Your task to perform on an android device: open app "Google Chrome" Image 0: 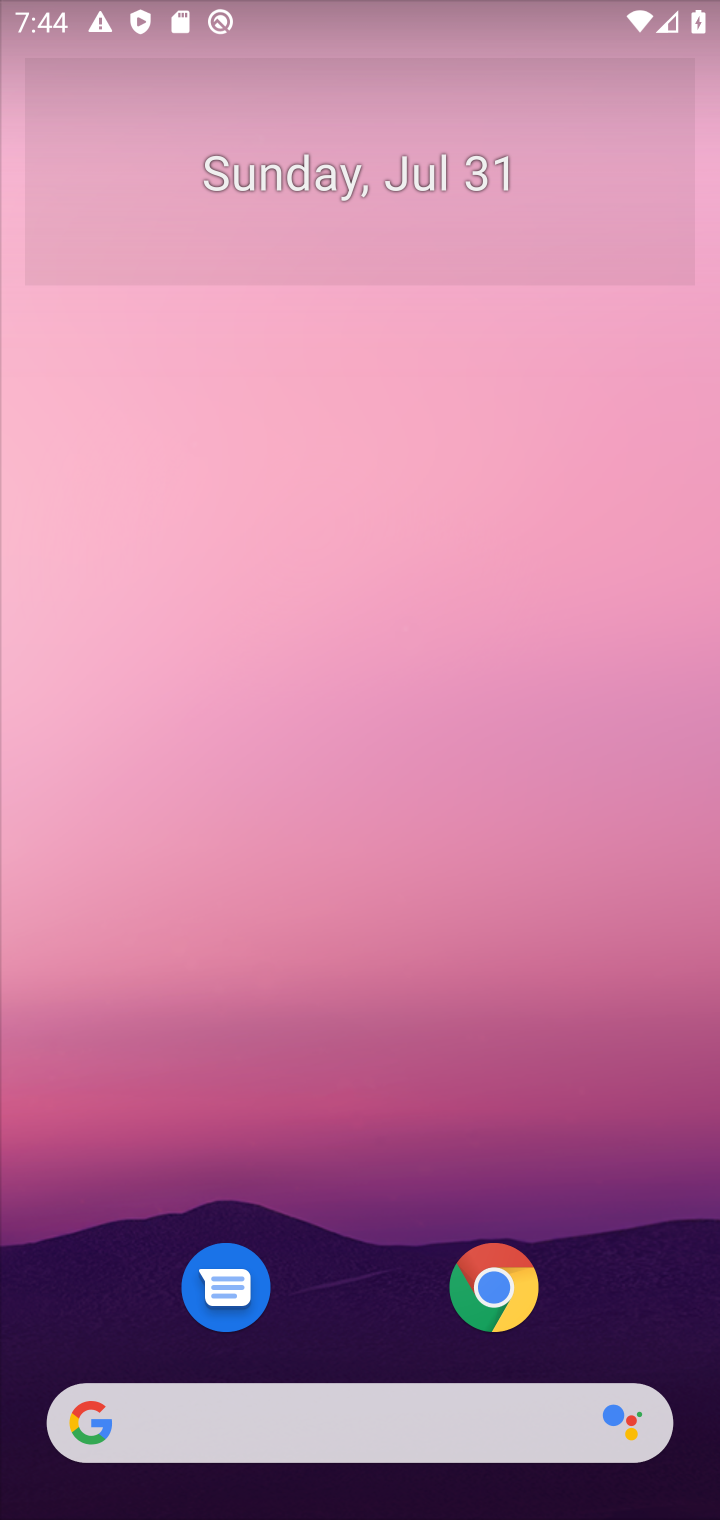
Step 0: click (466, 1291)
Your task to perform on an android device: open app "Google Chrome" Image 1: 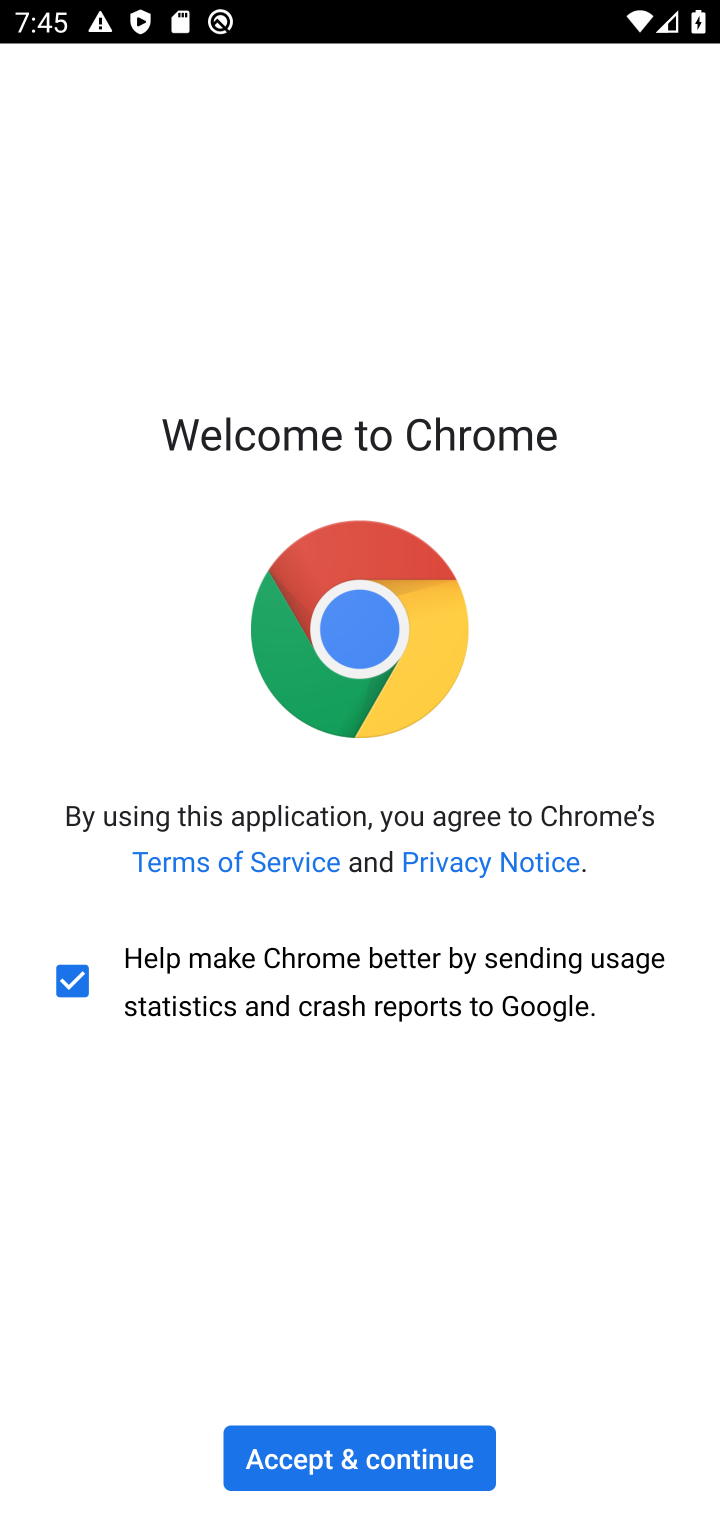
Step 1: task complete